Your task to perform on an android device: Open privacy settings Image 0: 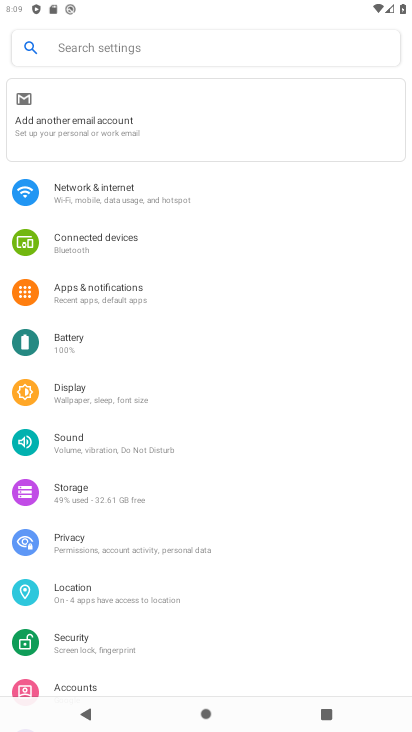
Step 0: press home button
Your task to perform on an android device: Open privacy settings Image 1: 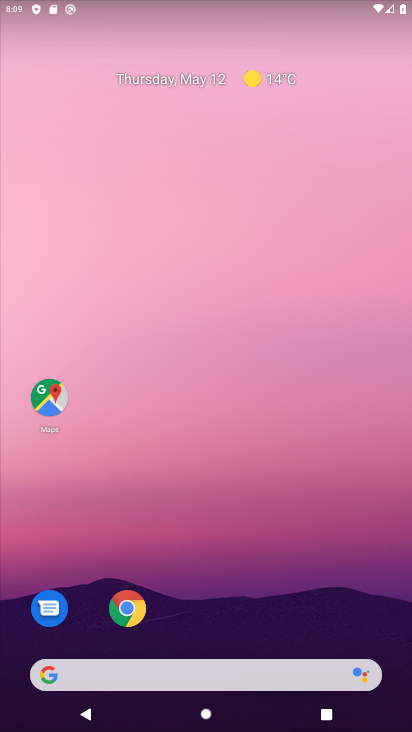
Step 1: drag from (207, 567) to (285, 335)
Your task to perform on an android device: Open privacy settings Image 2: 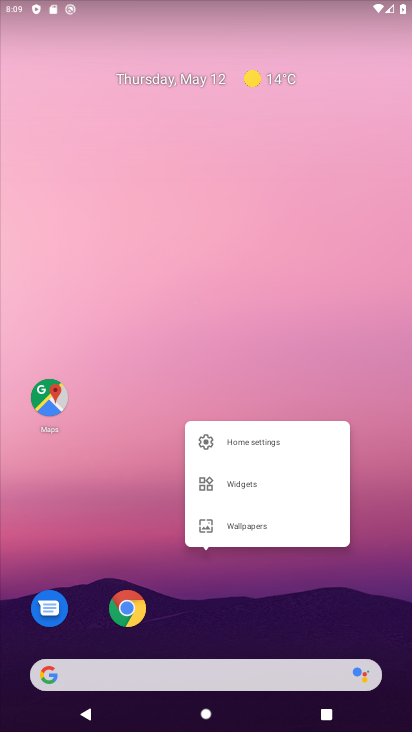
Step 2: drag from (166, 572) to (203, 226)
Your task to perform on an android device: Open privacy settings Image 3: 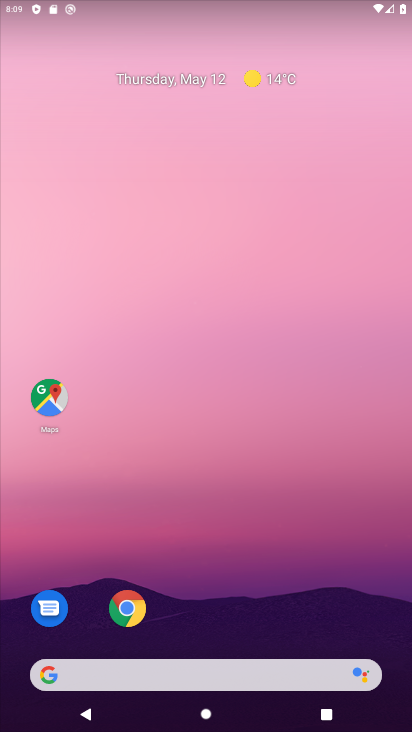
Step 3: drag from (184, 664) to (260, 216)
Your task to perform on an android device: Open privacy settings Image 4: 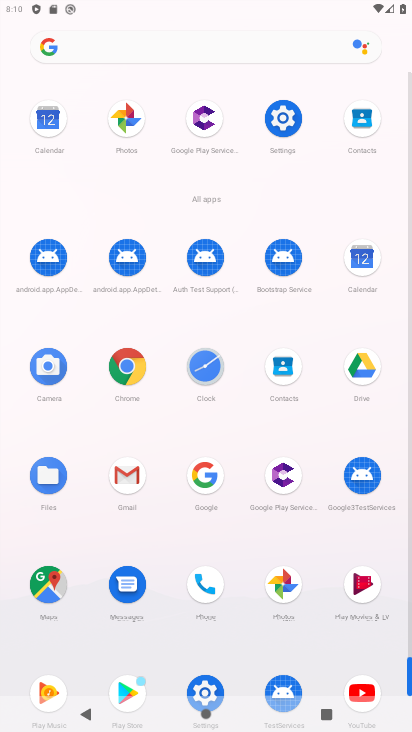
Step 4: click (208, 685)
Your task to perform on an android device: Open privacy settings Image 5: 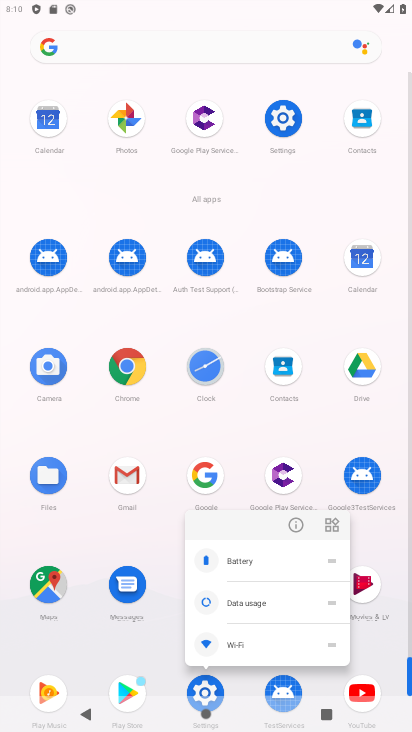
Step 5: click (289, 122)
Your task to perform on an android device: Open privacy settings Image 6: 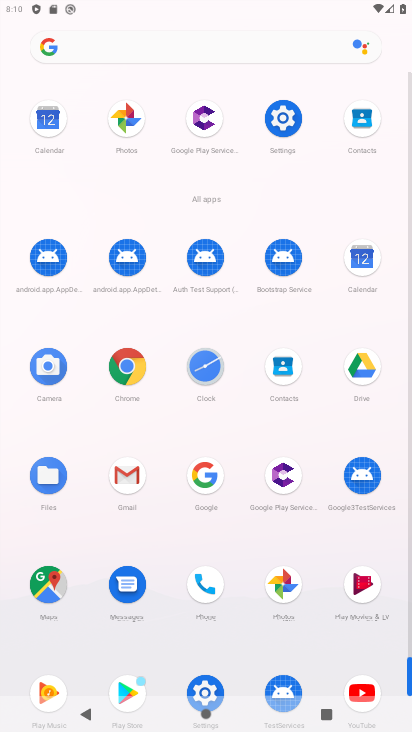
Step 6: click (281, 120)
Your task to perform on an android device: Open privacy settings Image 7: 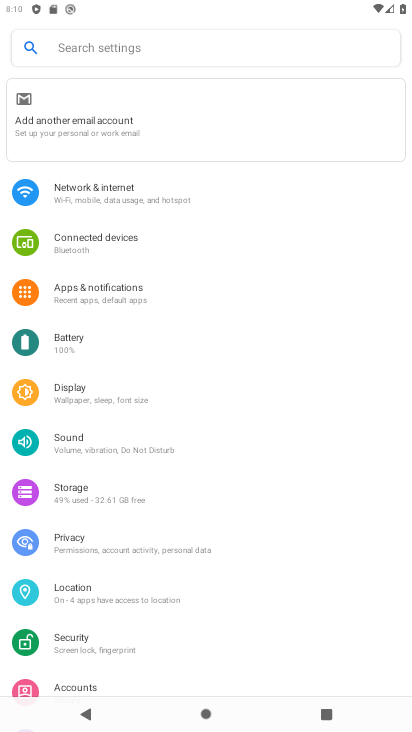
Step 7: click (92, 548)
Your task to perform on an android device: Open privacy settings Image 8: 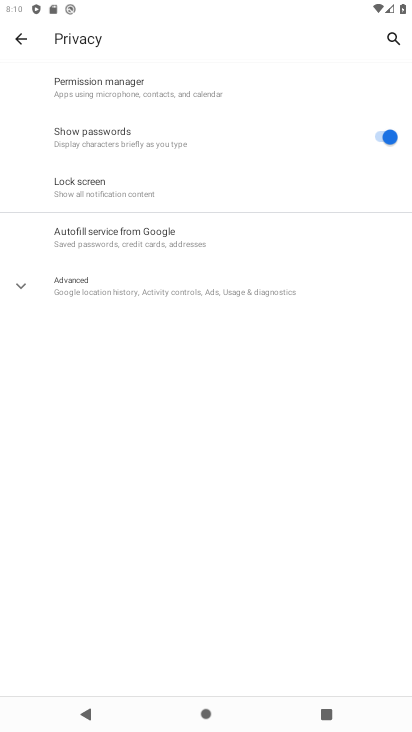
Step 8: click (111, 292)
Your task to perform on an android device: Open privacy settings Image 9: 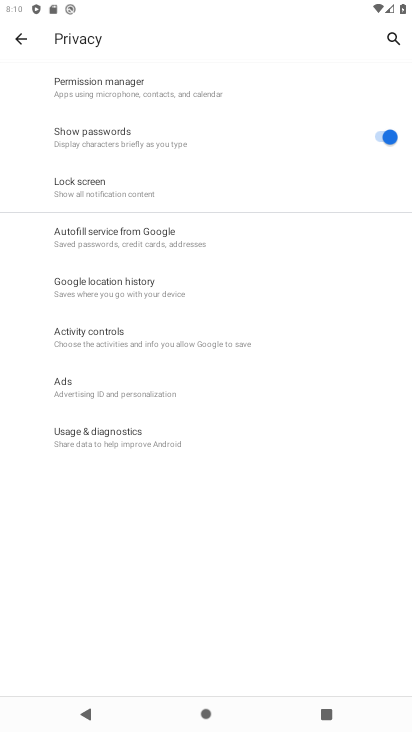
Step 9: task complete